Your task to perform on an android device: toggle show notifications on the lock screen Image 0: 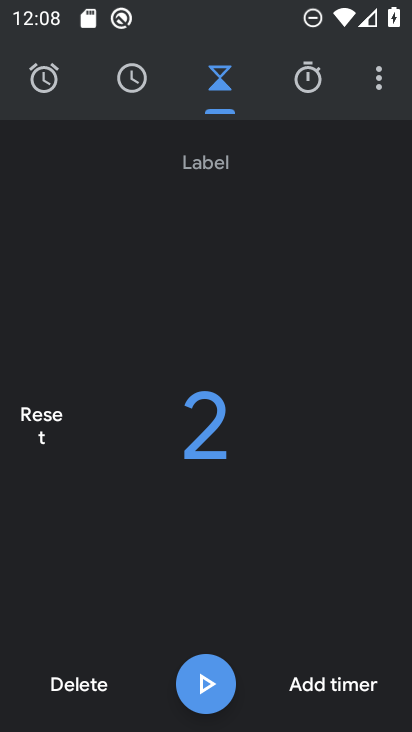
Step 0: press home button
Your task to perform on an android device: toggle show notifications on the lock screen Image 1: 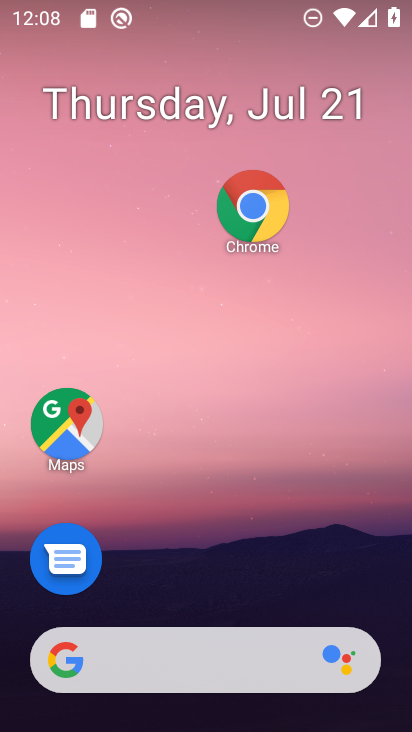
Step 1: drag from (151, 578) to (253, 23)
Your task to perform on an android device: toggle show notifications on the lock screen Image 2: 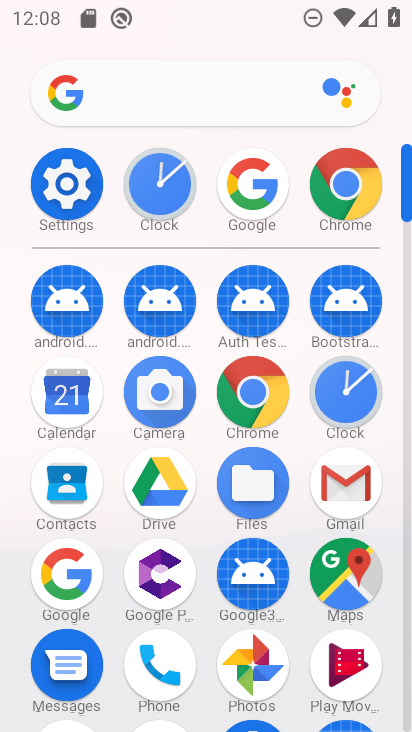
Step 2: drag from (289, 352) to (289, 178)
Your task to perform on an android device: toggle show notifications on the lock screen Image 3: 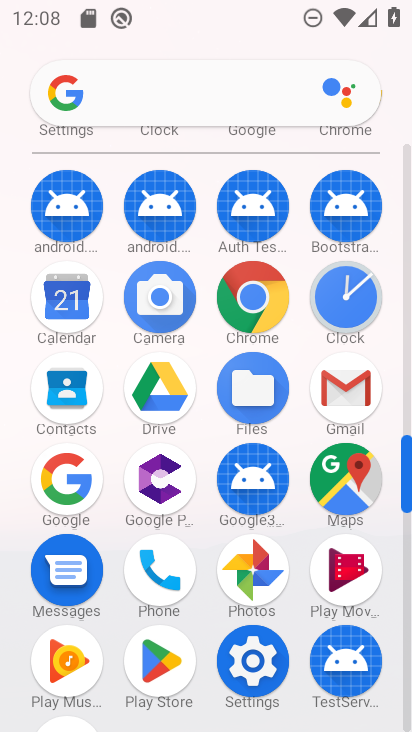
Step 3: click (258, 663)
Your task to perform on an android device: toggle show notifications on the lock screen Image 4: 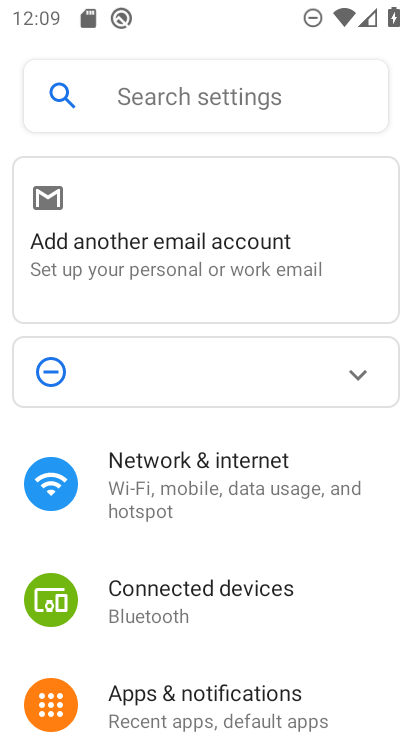
Step 4: drag from (191, 521) to (241, 192)
Your task to perform on an android device: toggle show notifications on the lock screen Image 5: 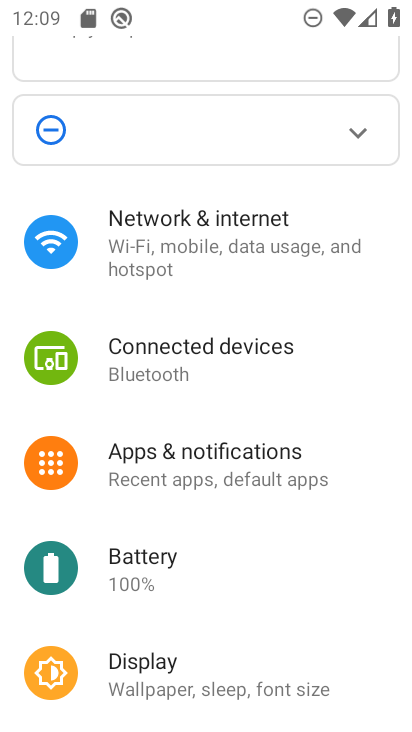
Step 5: click (226, 482)
Your task to perform on an android device: toggle show notifications on the lock screen Image 6: 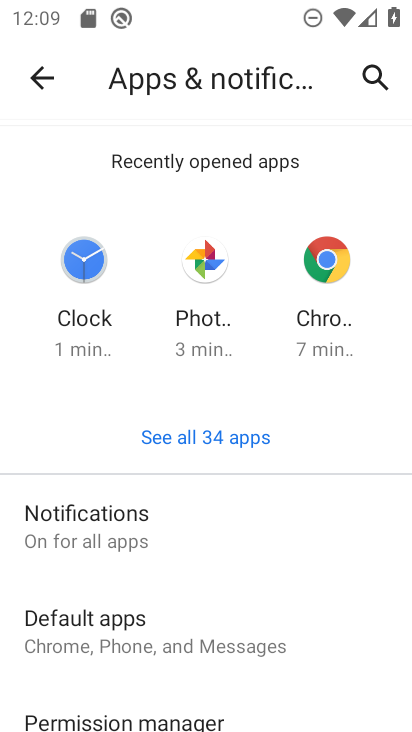
Step 6: click (109, 505)
Your task to perform on an android device: toggle show notifications on the lock screen Image 7: 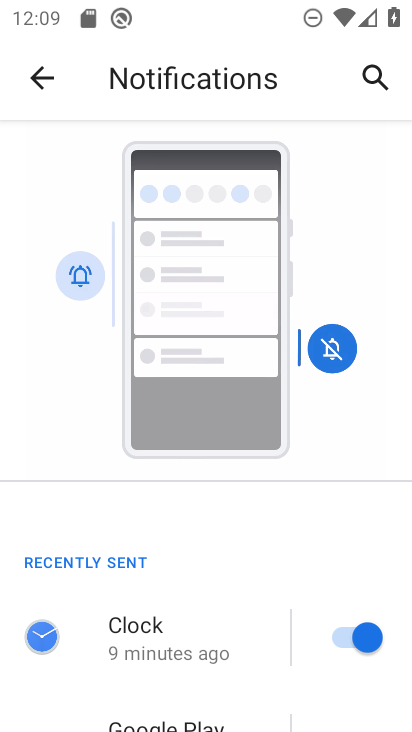
Step 7: drag from (179, 485) to (221, 190)
Your task to perform on an android device: toggle show notifications on the lock screen Image 8: 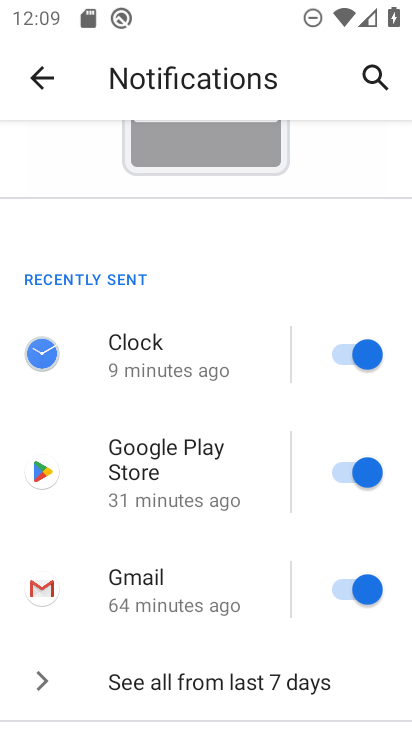
Step 8: drag from (212, 534) to (243, 187)
Your task to perform on an android device: toggle show notifications on the lock screen Image 9: 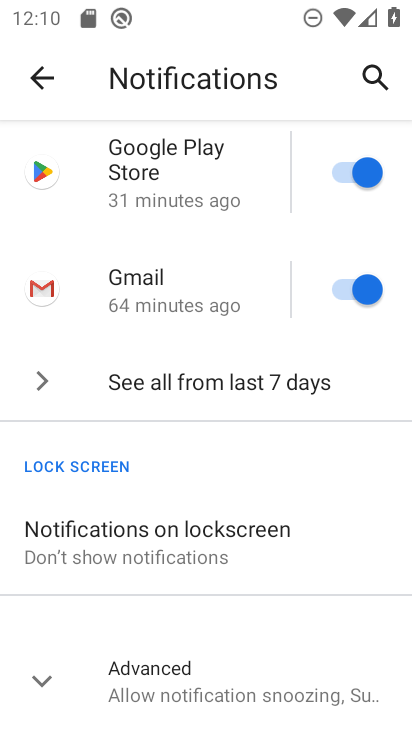
Step 9: click (235, 543)
Your task to perform on an android device: toggle show notifications on the lock screen Image 10: 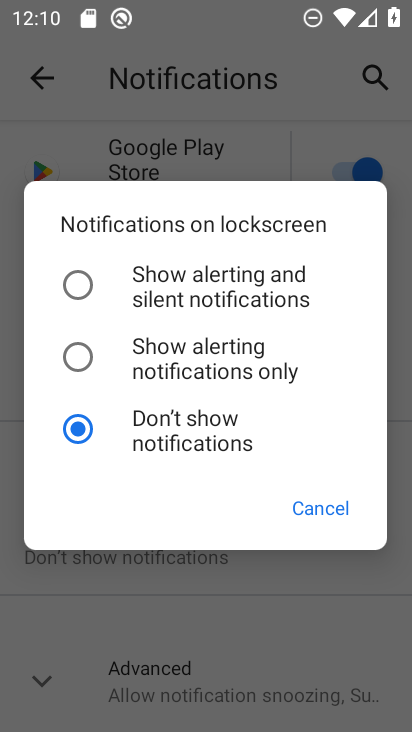
Step 10: click (132, 263)
Your task to perform on an android device: toggle show notifications on the lock screen Image 11: 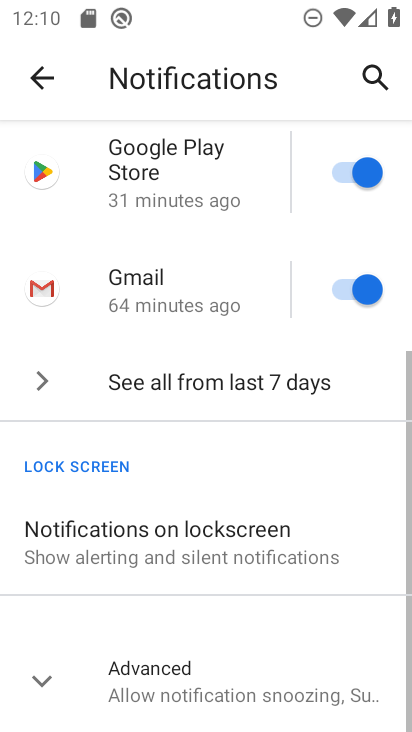
Step 11: task complete